Your task to perform on an android device: check google app version Image 0: 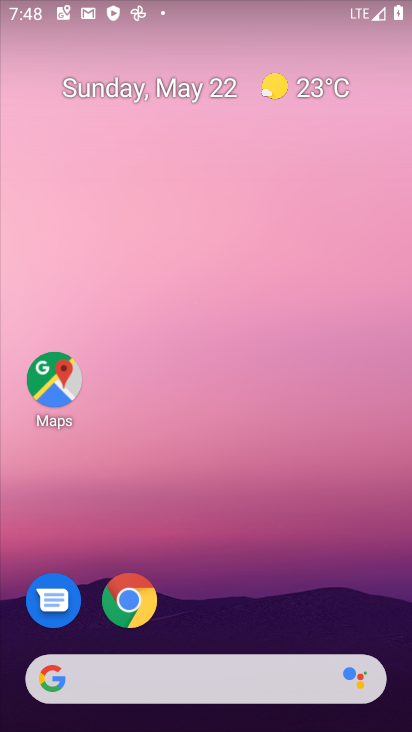
Step 0: drag from (328, 617) to (313, 27)
Your task to perform on an android device: check google app version Image 1: 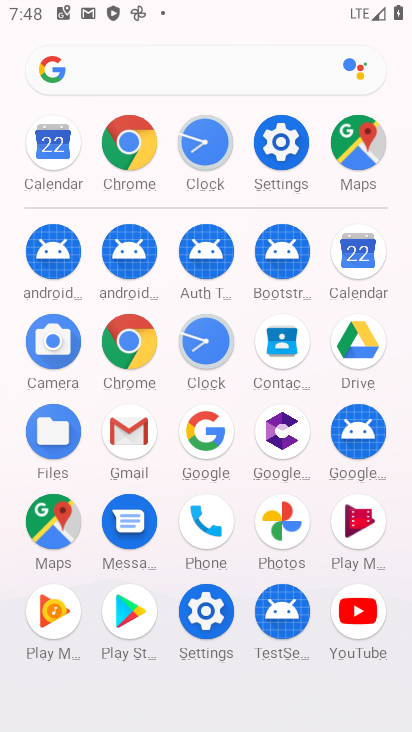
Step 1: click (201, 431)
Your task to perform on an android device: check google app version Image 2: 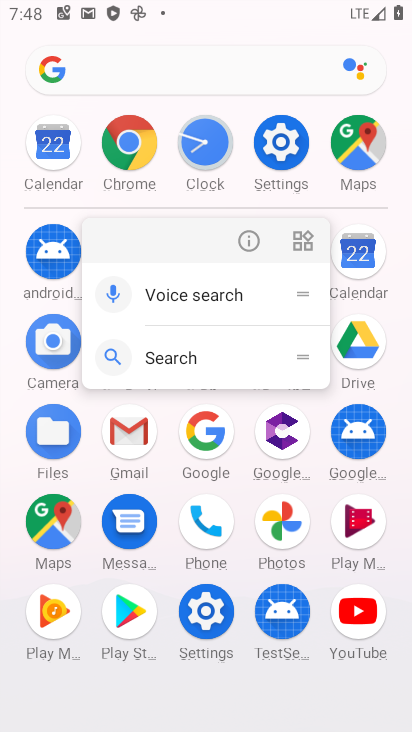
Step 2: click (240, 243)
Your task to perform on an android device: check google app version Image 3: 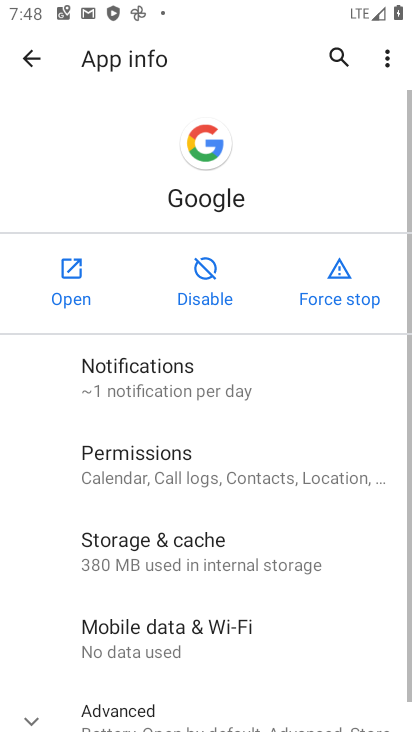
Step 3: drag from (296, 578) to (259, 165)
Your task to perform on an android device: check google app version Image 4: 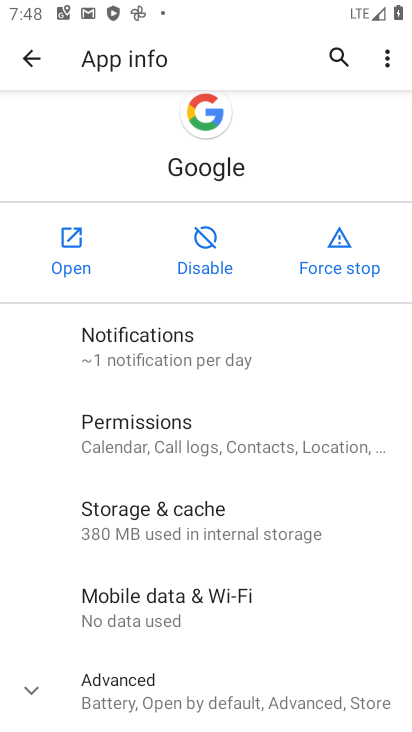
Step 4: click (135, 700)
Your task to perform on an android device: check google app version Image 5: 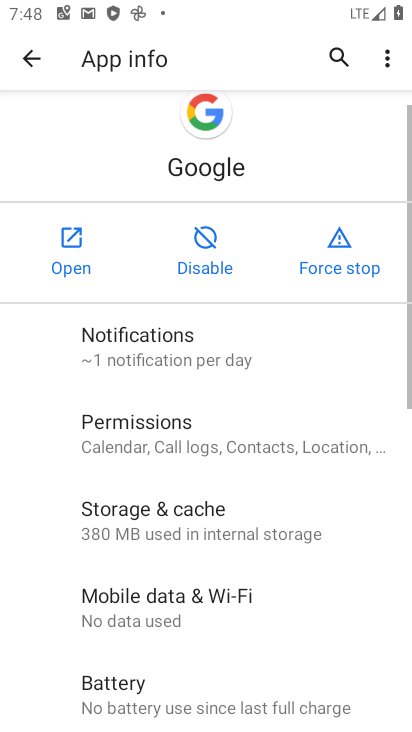
Step 5: task complete